Your task to perform on an android device: turn on bluetooth scan Image 0: 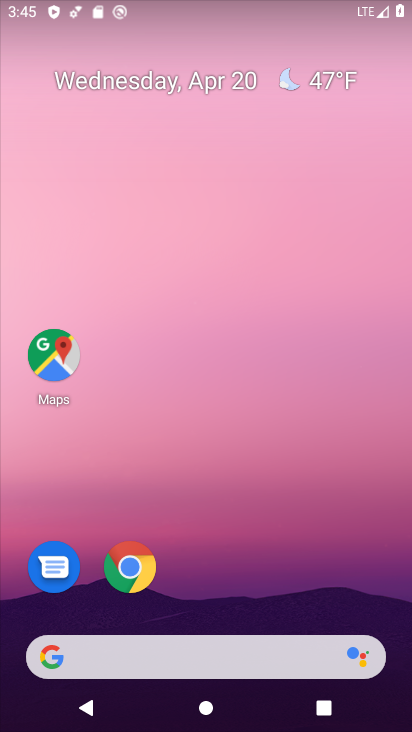
Step 0: drag from (353, 567) to (280, 66)
Your task to perform on an android device: turn on bluetooth scan Image 1: 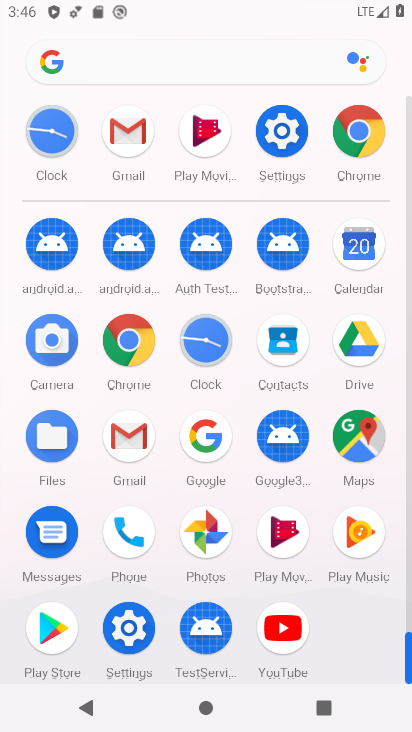
Step 1: click (286, 127)
Your task to perform on an android device: turn on bluetooth scan Image 2: 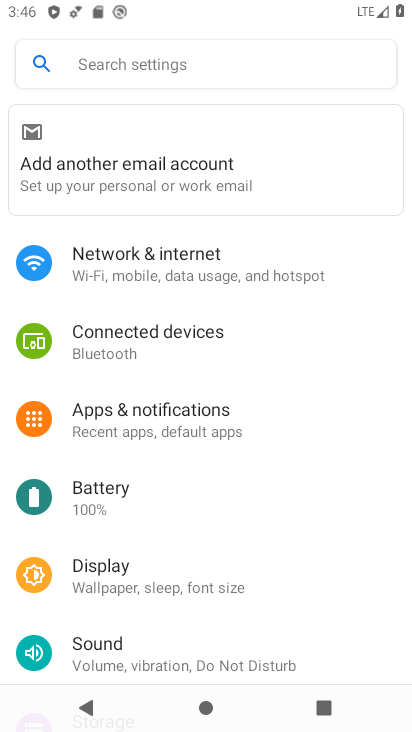
Step 2: drag from (245, 574) to (255, 210)
Your task to perform on an android device: turn on bluetooth scan Image 3: 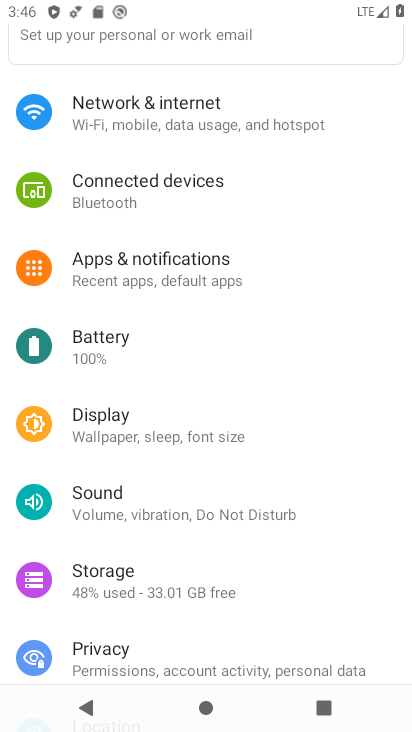
Step 3: drag from (260, 460) to (266, 151)
Your task to perform on an android device: turn on bluetooth scan Image 4: 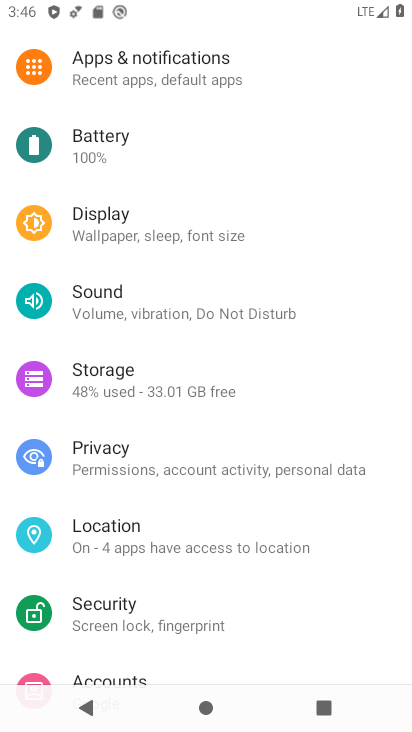
Step 4: click (127, 533)
Your task to perform on an android device: turn on bluetooth scan Image 5: 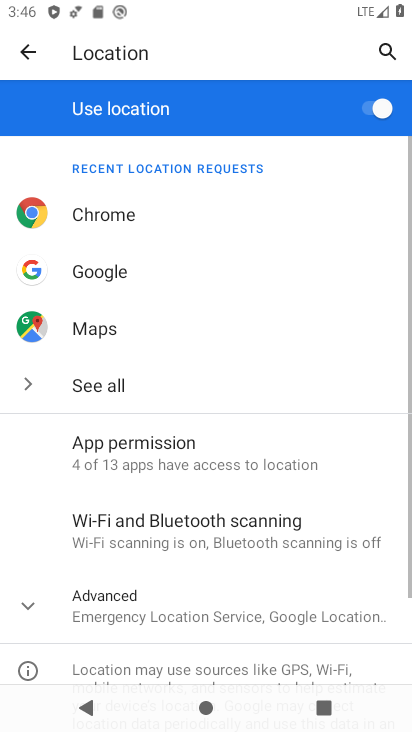
Step 5: click (265, 530)
Your task to perform on an android device: turn on bluetooth scan Image 6: 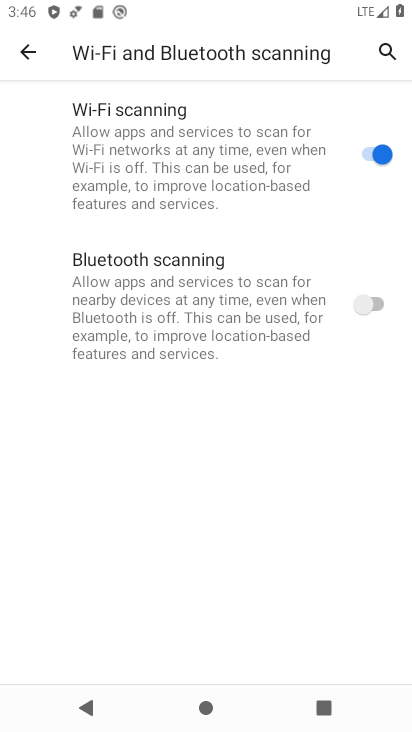
Step 6: click (374, 306)
Your task to perform on an android device: turn on bluetooth scan Image 7: 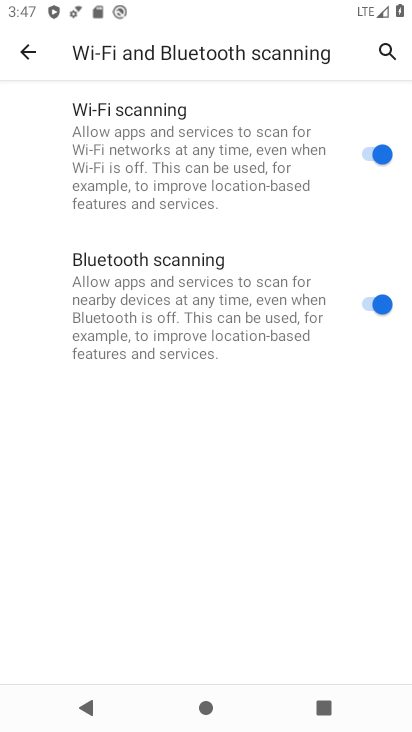
Step 7: task complete